Your task to perform on an android device: Open Youtube and go to the subscriptions tab Image 0: 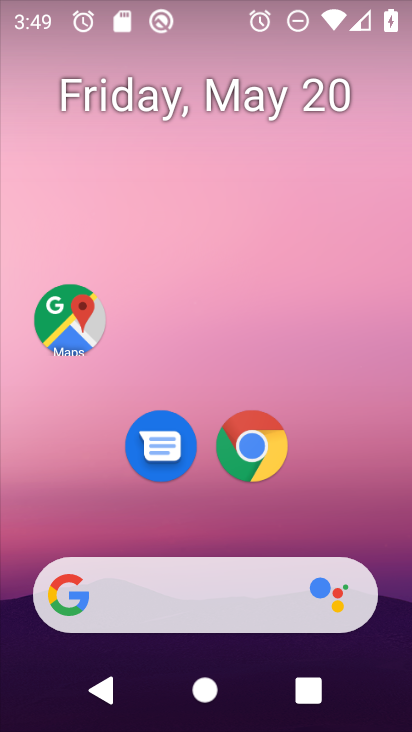
Step 0: drag from (373, 518) to (356, 22)
Your task to perform on an android device: Open Youtube and go to the subscriptions tab Image 1: 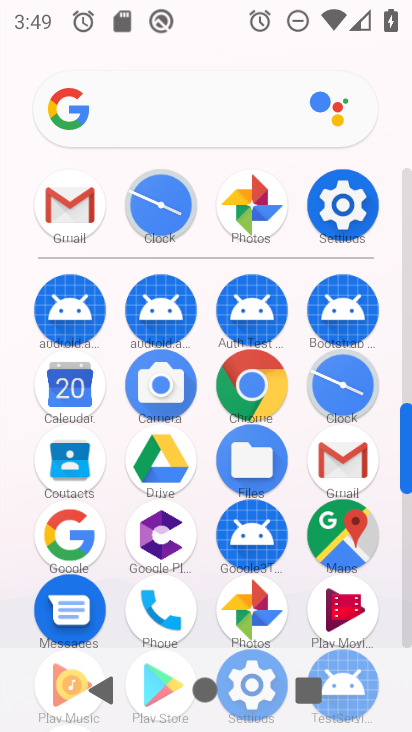
Step 1: drag from (406, 467) to (411, 388)
Your task to perform on an android device: Open Youtube and go to the subscriptions tab Image 2: 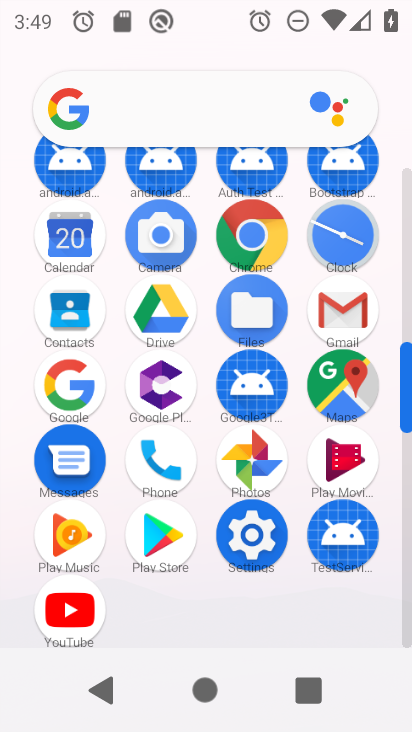
Step 2: click (65, 613)
Your task to perform on an android device: Open Youtube and go to the subscriptions tab Image 3: 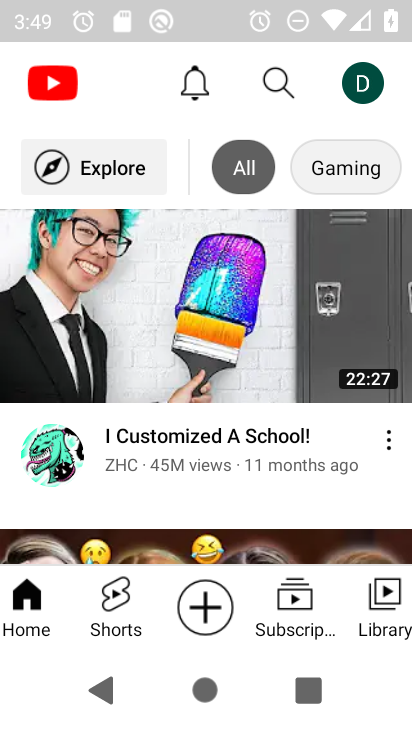
Step 3: click (295, 604)
Your task to perform on an android device: Open Youtube and go to the subscriptions tab Image 4: 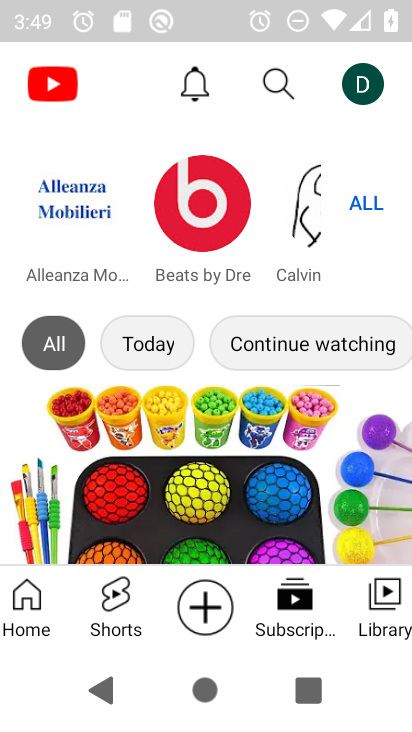
Step 4: task complete